Your task to perform on an android device: toggle notifications settings in the gmail app Image 0: 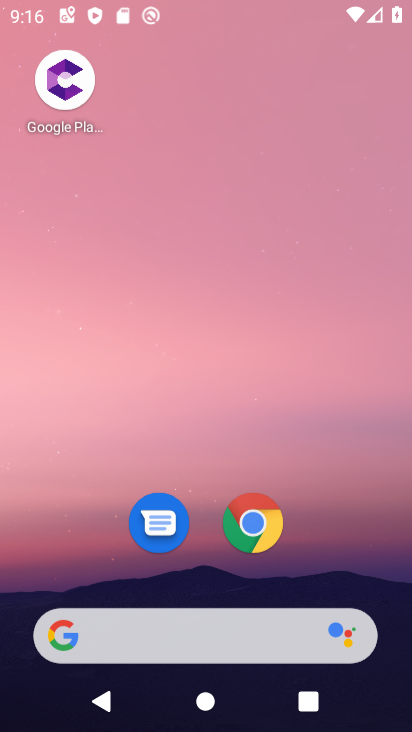
Step 0: press home button
Your task to perform on an android device: toggle notifications settings in the gmail app Image 1: 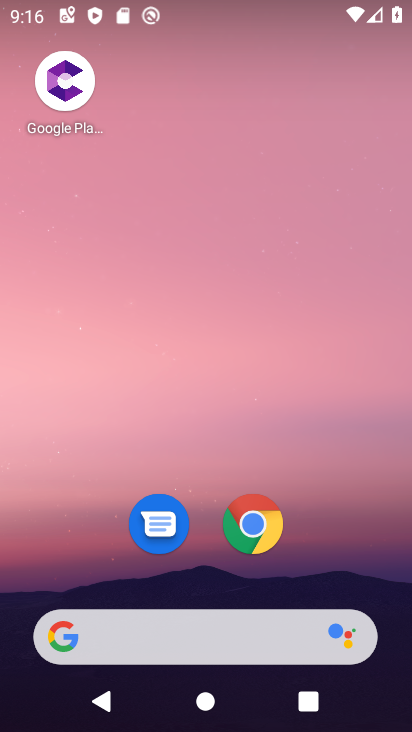
Step 1: drag from (166, 640) to (246, 112)
Your task to perform on an android device: toggle notifications settings in the gmail app Image 2: 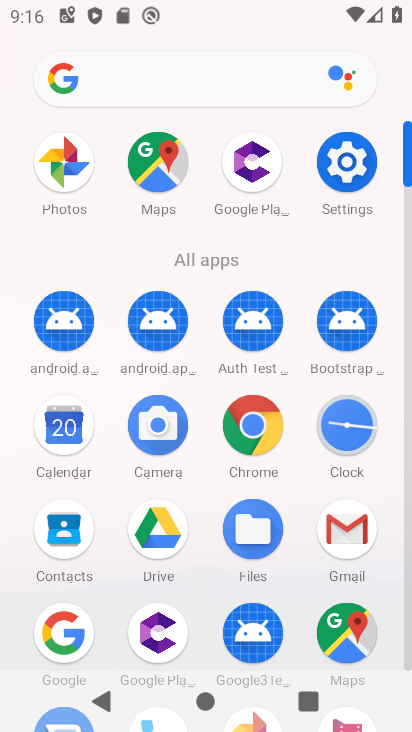
Step 2: click (351, 546)
Your task to perform on an android device: toggle notifications settings in the gmail app Image 3: 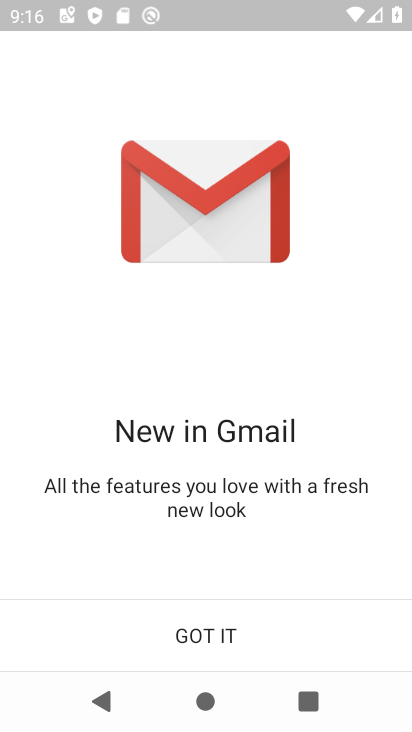
Step 3: click (216, 640)
Your task to perform on an android device: toggle notifications settings in the gmail app Image 4: 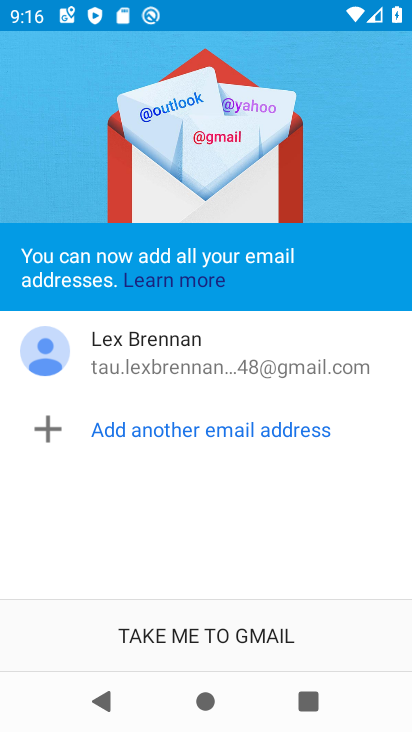
Step 4: click (216, 640)
Your task to perform on an android device: toggle notifications settings in the gmail app Image 5: 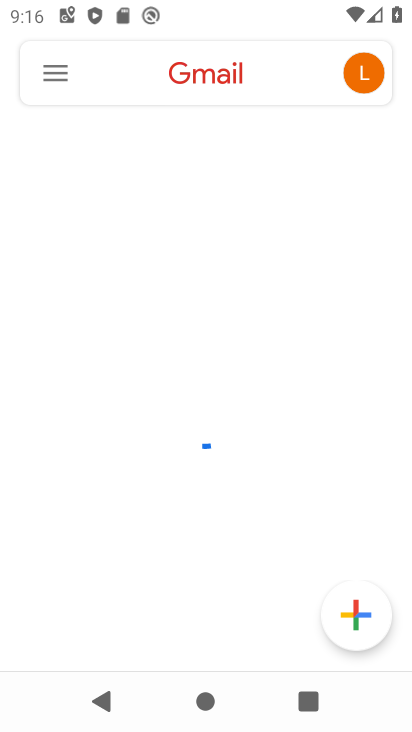
Step 5: click (61, 75)
Your task to perform on an android device: toggle notifications settings in the gmail app Image 6: 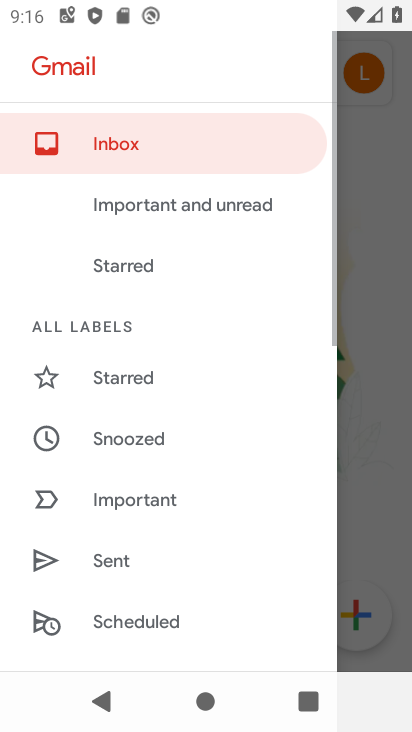
Step 6: drag from (210, 601) to (286, 63)
Your task to perform on an android device: toggle notifications settings in the gmail app Image 7: 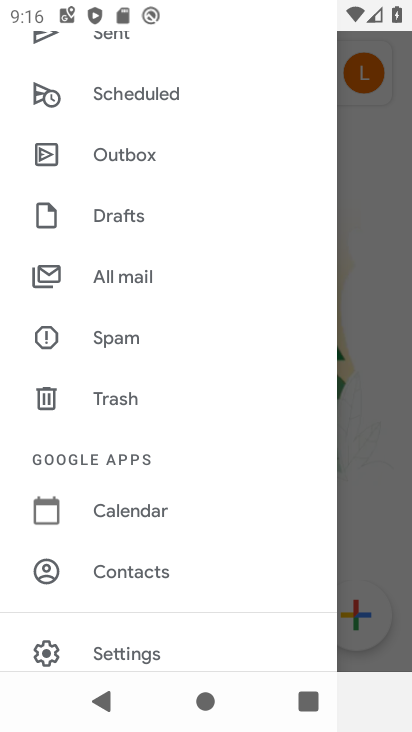
Step 7: click (132, 648)
Your task to perform on an android device: toggle notifications settings in the gmail app Image 8: 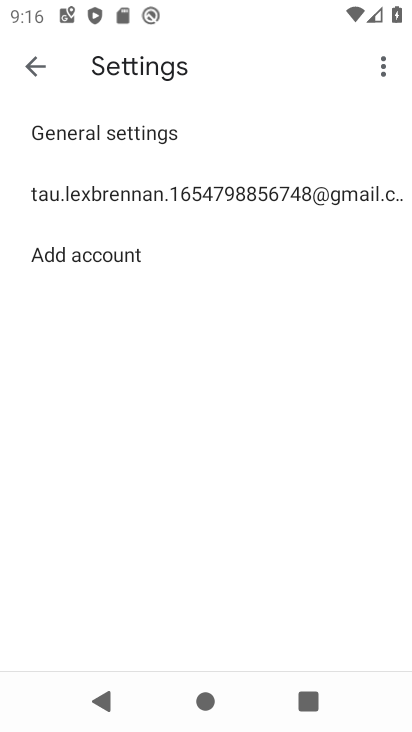
Step 8: click (226, 186)
Your task to perform on an android device: toggle notifications settings in the gmail app Image 9: 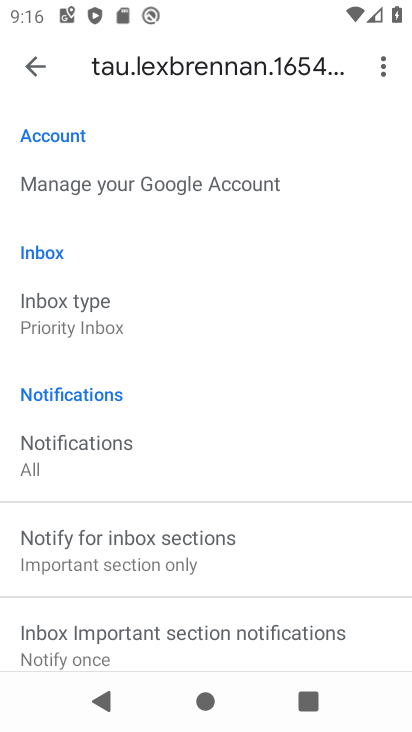
Step 9: click (70, 446)
Your task to perform on an android device: toggle notifications settings in the gmail app Image 10: 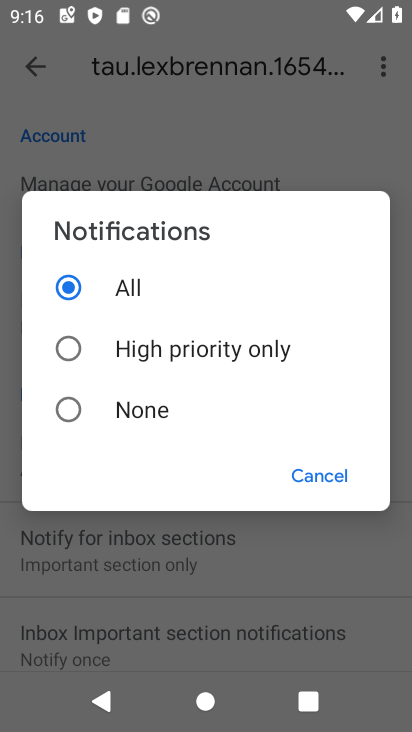
Step 10: click (64, 408)
Your task to perform on an android device: toggle notifications settings in the gmail app Image 11: 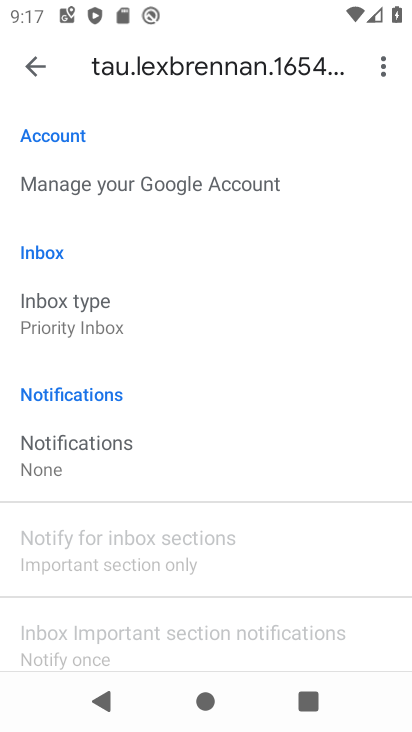
Step 11: task complete